Your task to perform on an android device: open a bookmark in the chrome app Image 0: 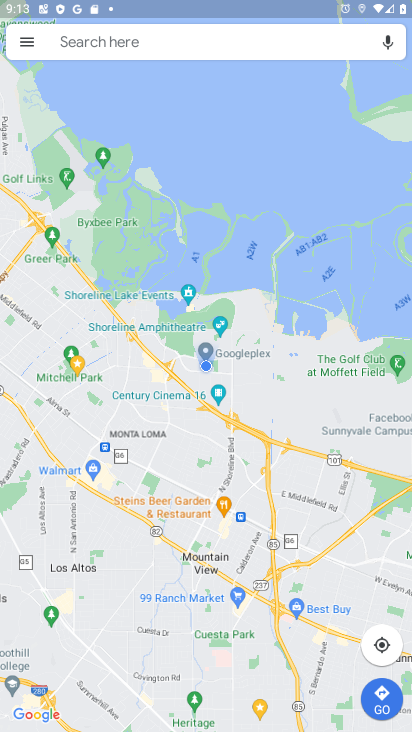
Step 0: press home button
Your task to perform on an android device: open a bookmark in the chrome app Image 1: 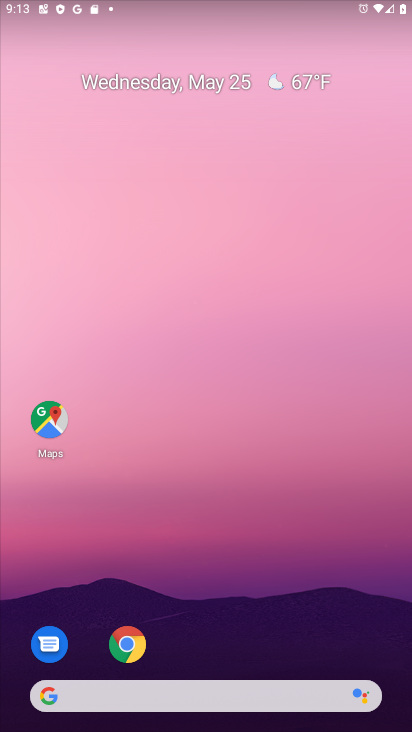
Step 1: click (124, 637)
Your task to perform on an android device: open a bookmark in the chrome app Image 2: 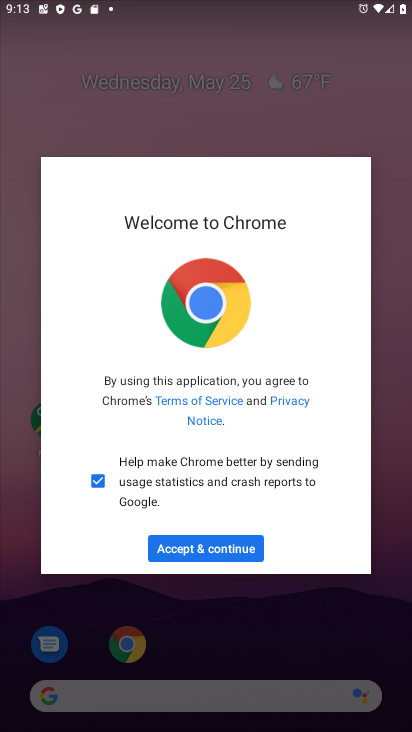
Step 2: click (198, 546)
Your task to perform on an android device: open a bookmark in the chrome app Image 3: 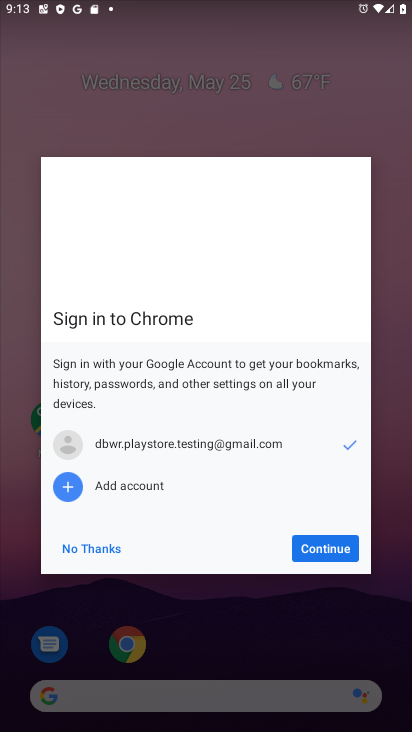
Step 3: click (327, 545)
Your task to perform on an android device: open a bookmark in the chrome app Image 4: 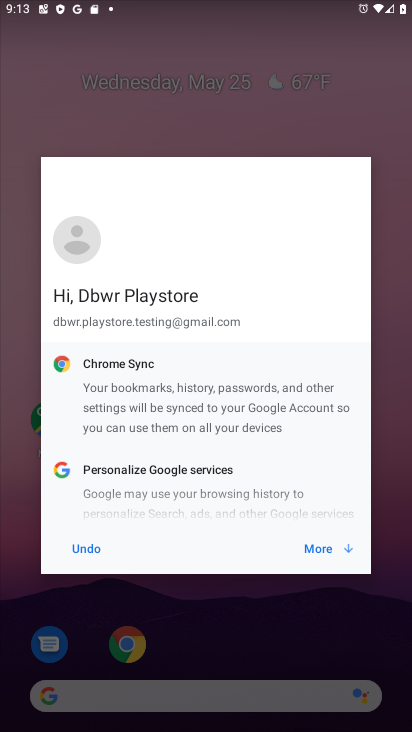
Step 4: click (323, 547)
Your task to perform on an android device: open a bookmark in the chrome app Image 5: 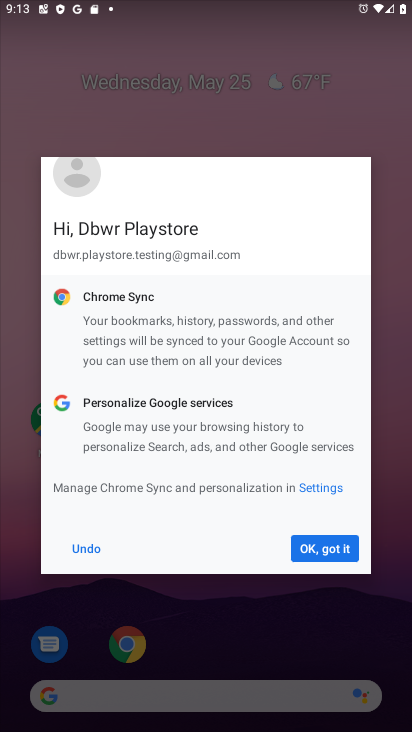
Step 5: click (324, 545)
Your task to perform on an android device: open a bookmark in the chrome app Image 6: 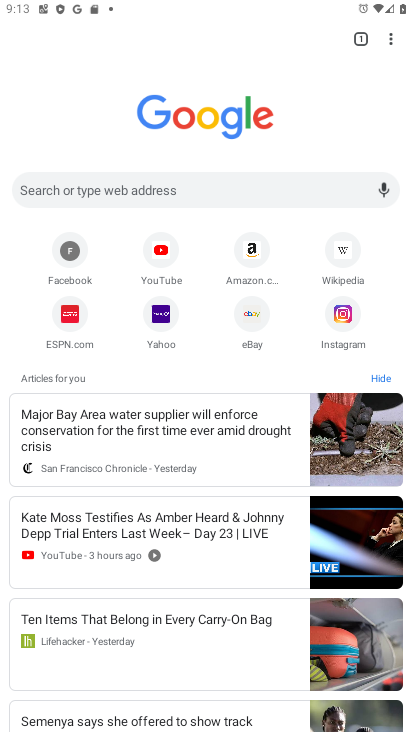
Step 6: click (389, 31)
Your task to perform on an android device: open a bookmark in the chrome app Image 7: 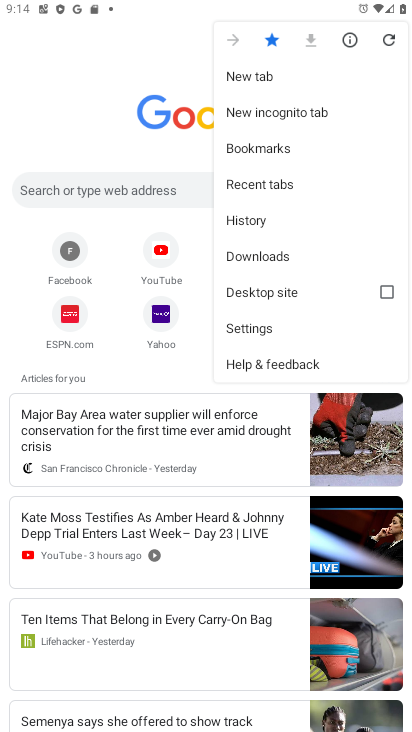
Step 7: click (298, 146)
Your task to perform on an android device: open a bookmark in the chrome app Image 8: 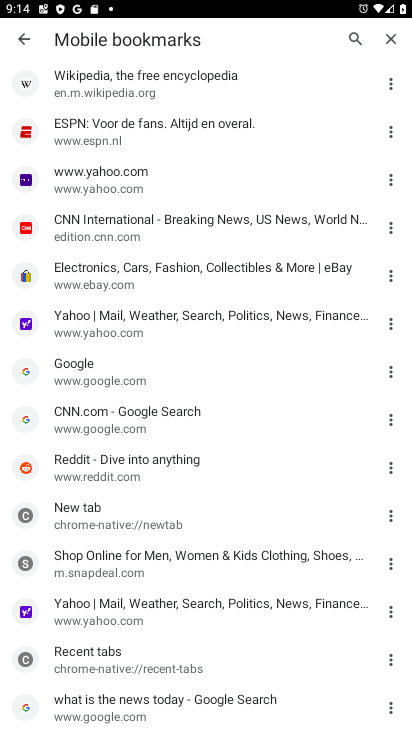
Step 8: click (168, 565)
Your task to perform on an android device: open a bookmark in the chrome app Image 9: 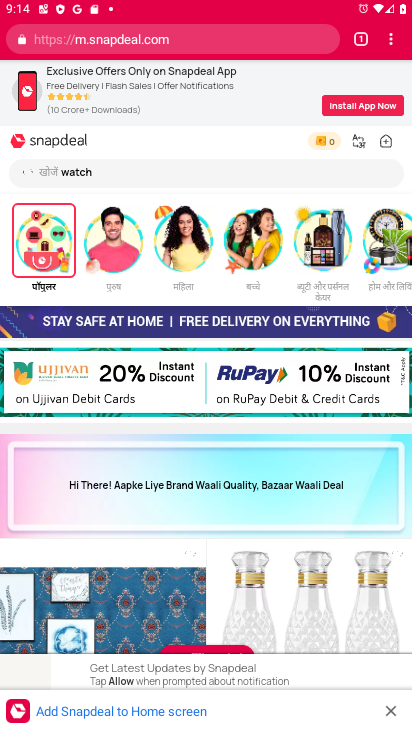
Step 9: task complete